Your task to perform on an android device: uninstall "Booking.com: Hotels and more" Image 0: 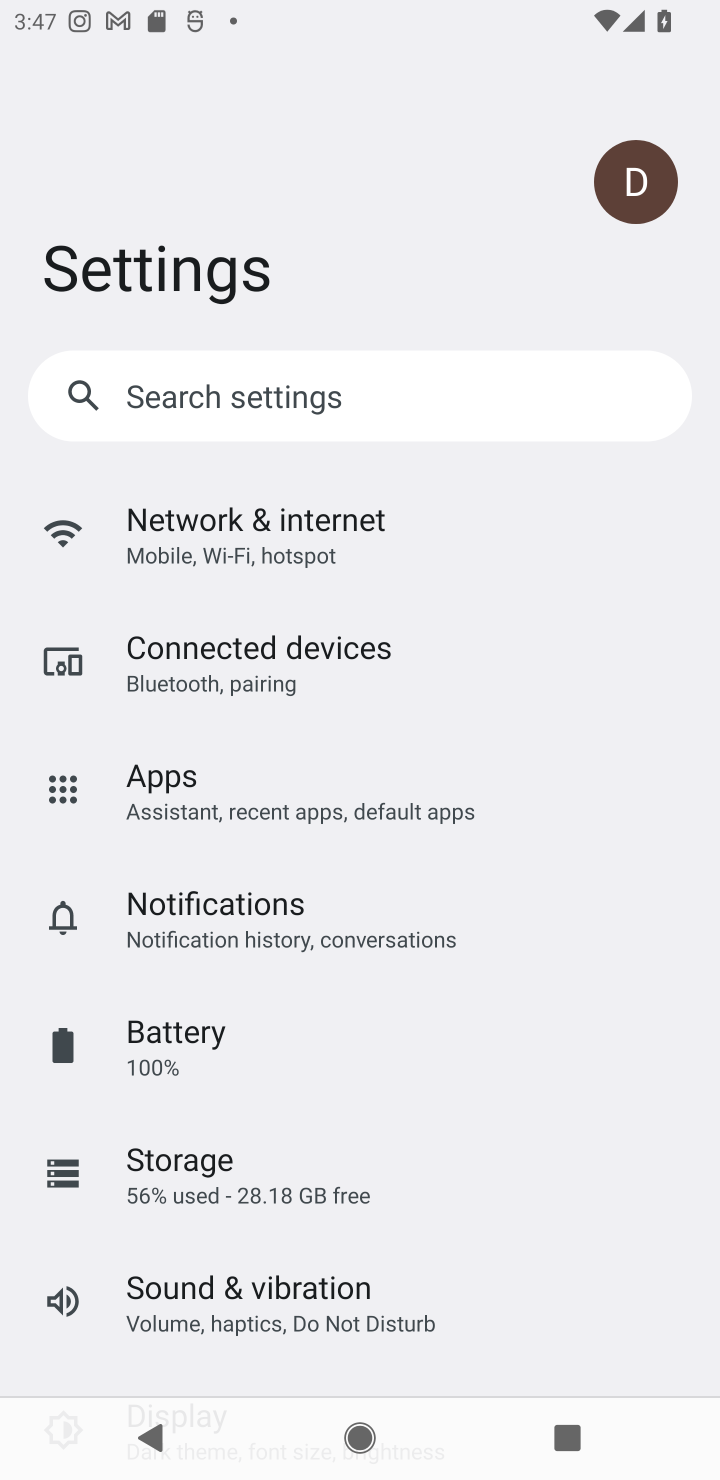
Step 0: press home button
Your task to perform on an android device: uninstall "Booking.com: Hotels and more" Image 1: 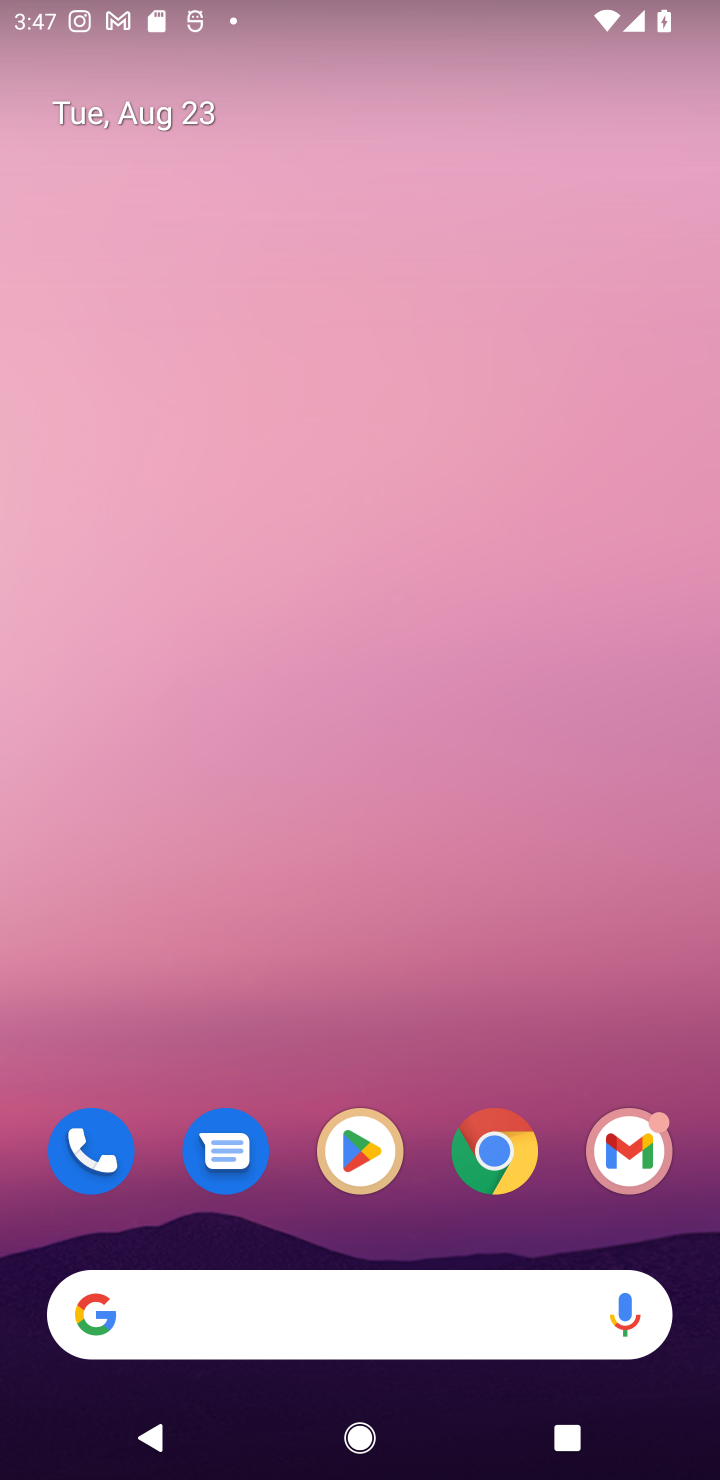
Step 1: click (357, 1153)
Your task to perform on an android device: uninstall "Booking.com: Hotels and more" Image 2: 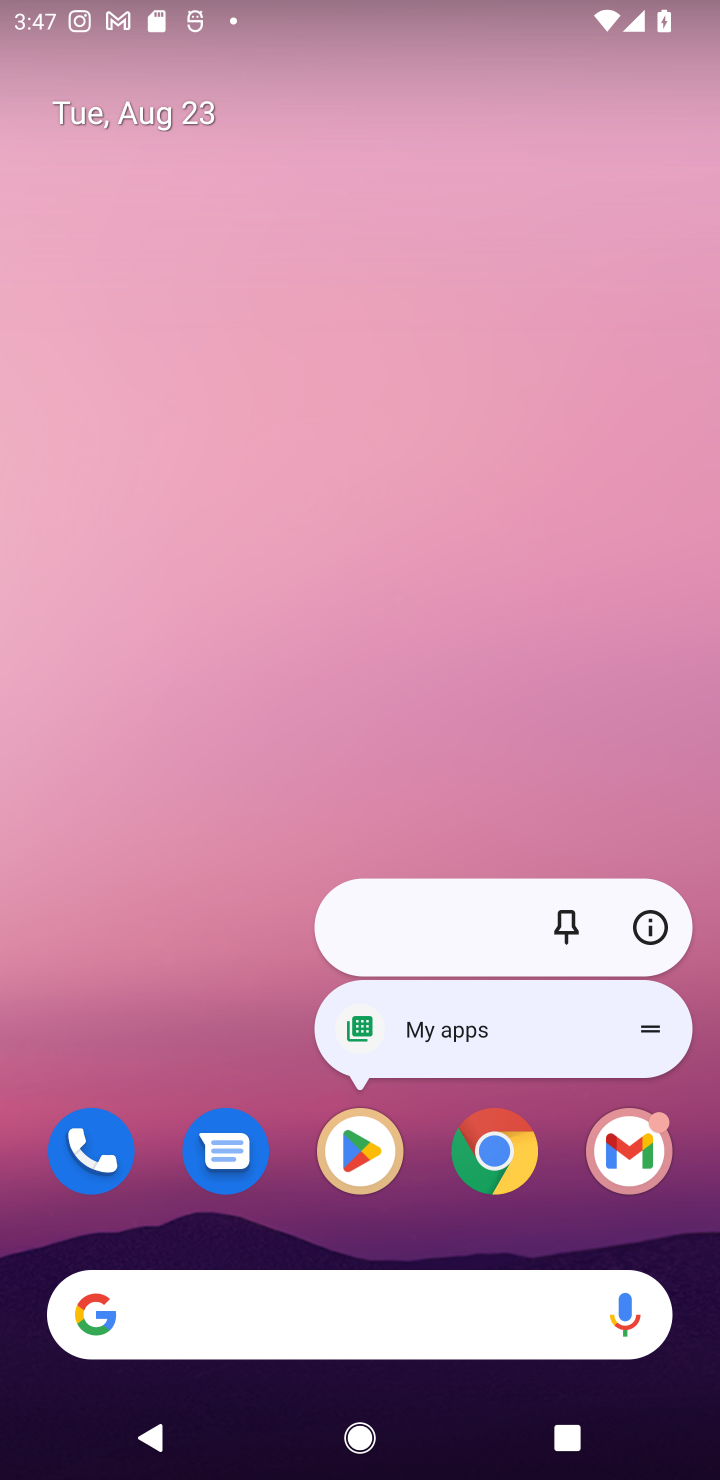
Step 2: click (357, 1157)
Your task to perform on an android device: uninstall "Booking.com: Hotels and more" Image 3: 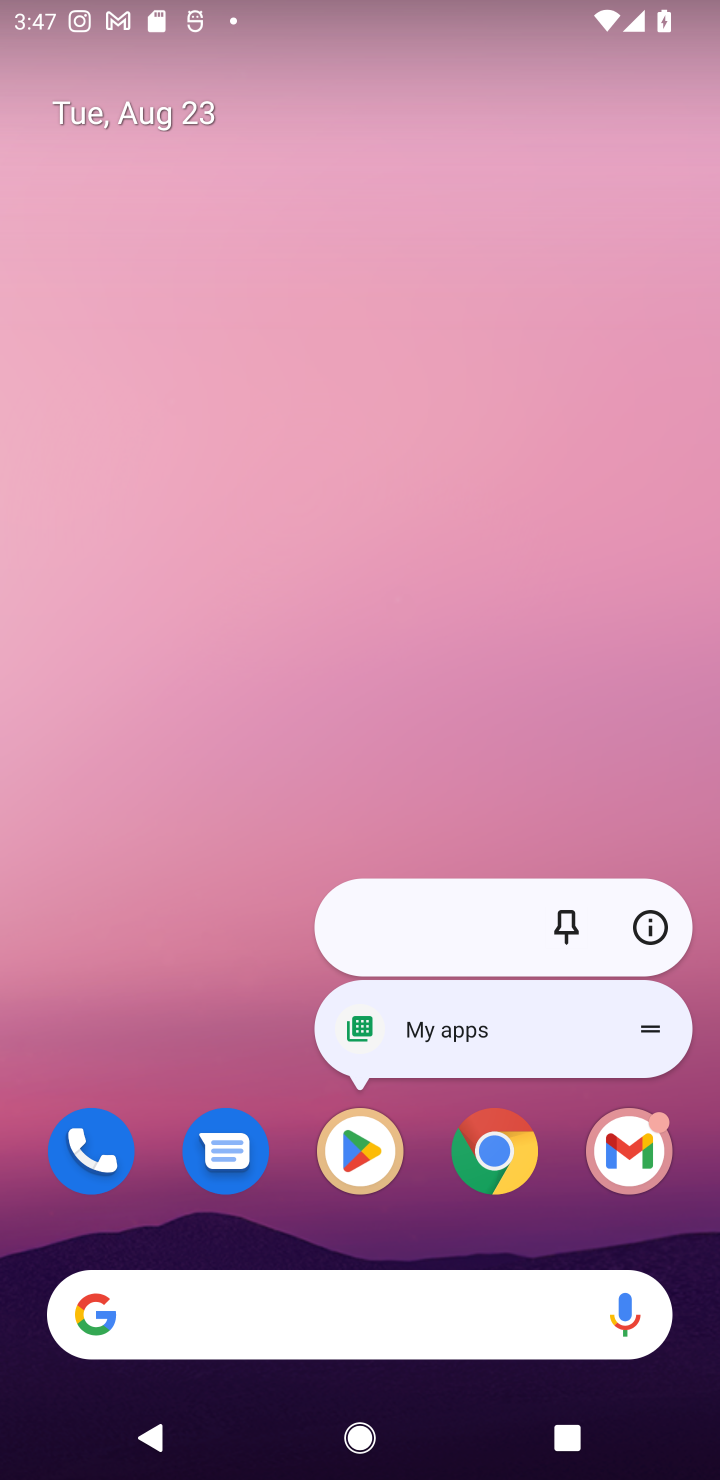
Step 3: click (357, 1157)
Your task to perform on an android device: uninstall "Booking.com: Hotels and more" Image 4: 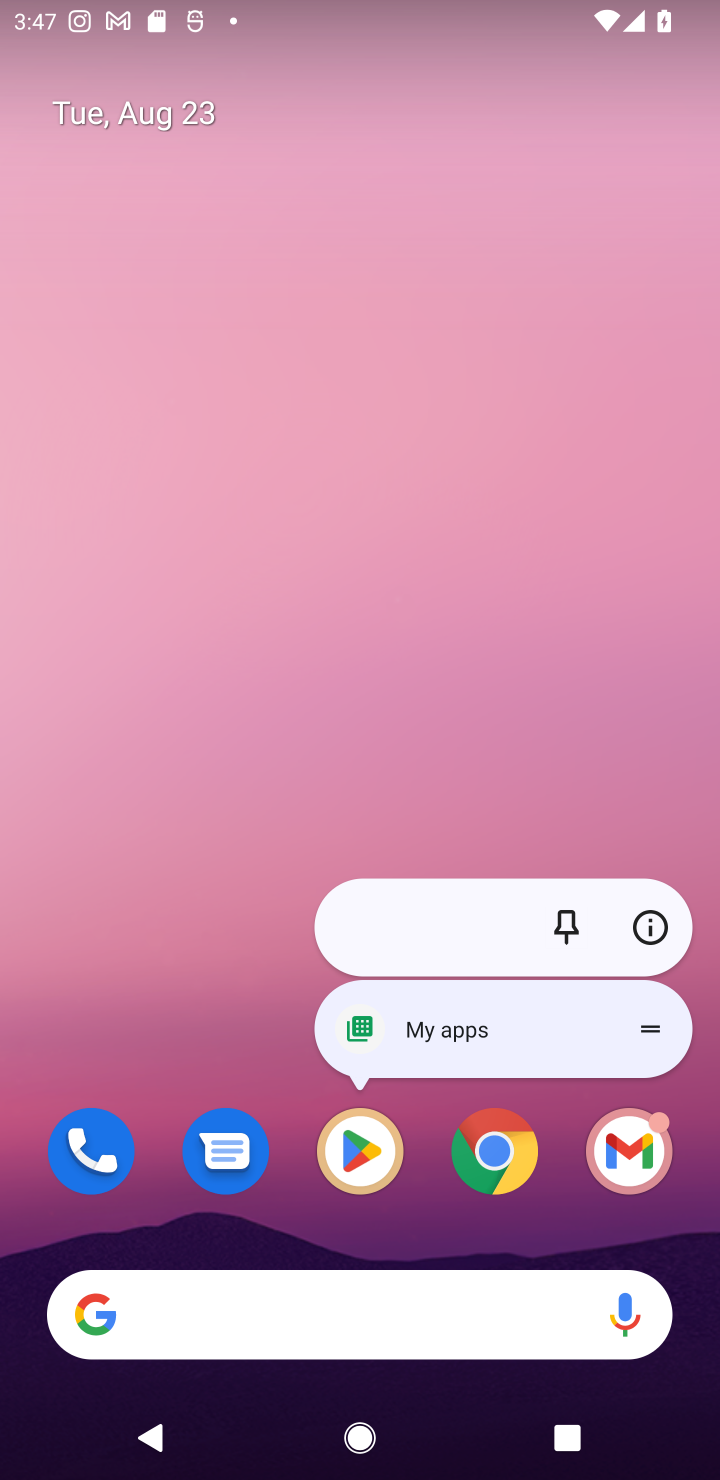
Step 4: click (357, 1157)
Your task to perform on an android device: uninstall "Booking.com: Hotels and more" Image 5: 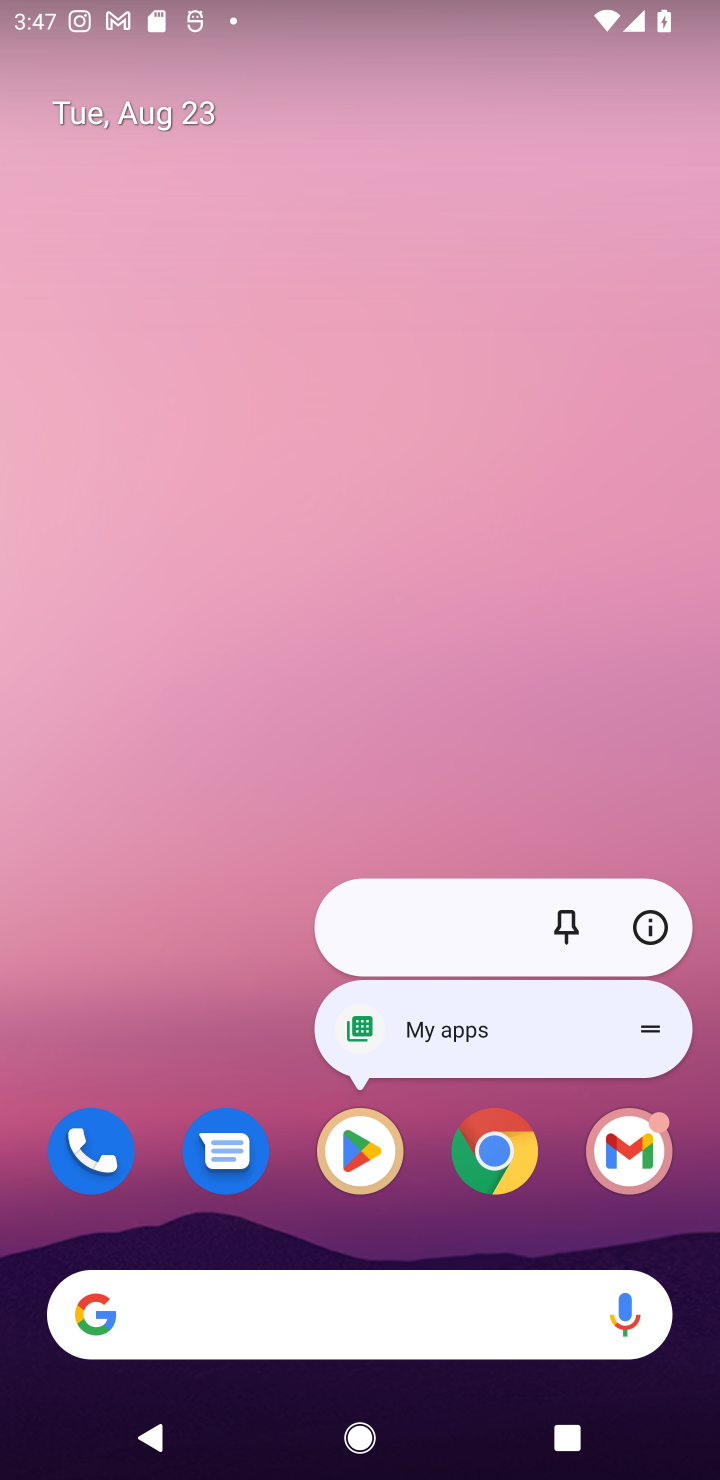
Step 5: click (357, 1157)
Your task to perform on an android device: uninstall "Booking.com: Hotels and more" Image 6: 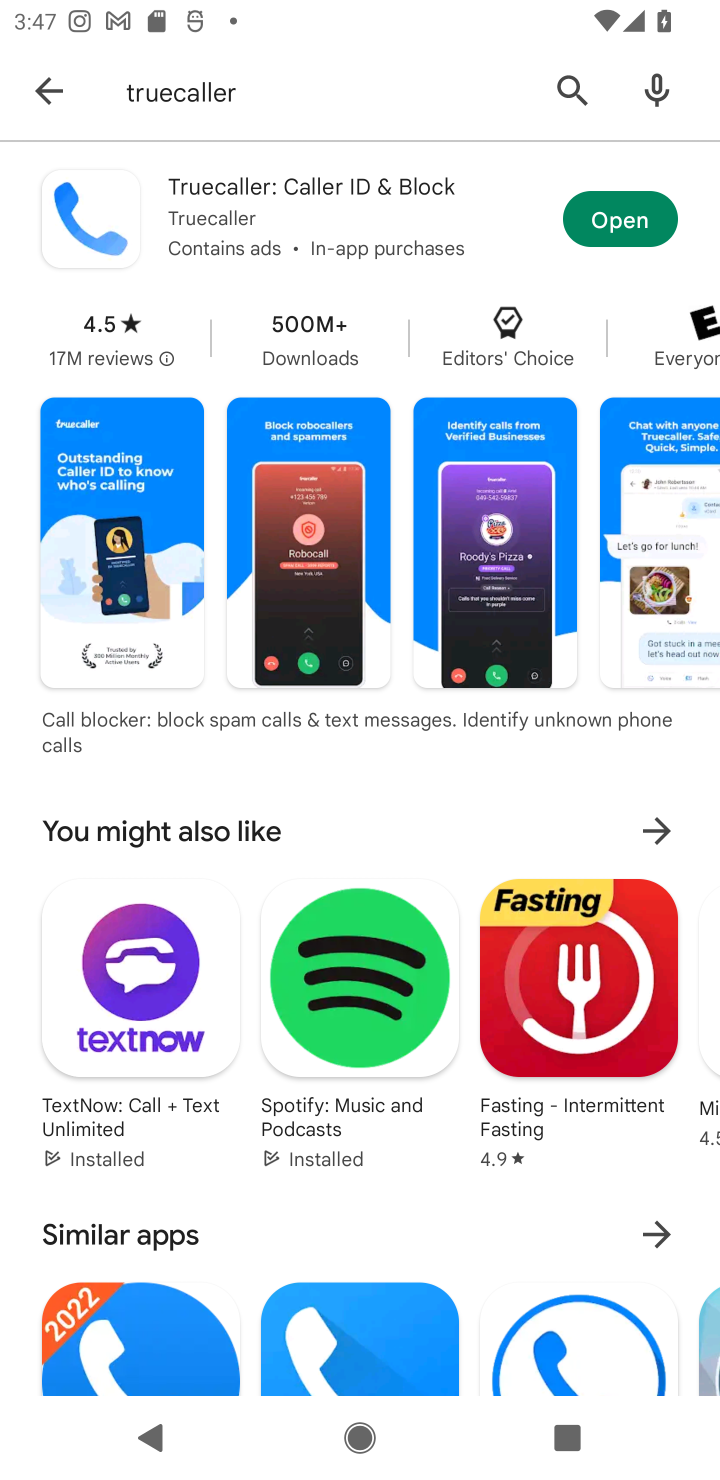
Step 6: click (578, 78)
Your task to perform on an android device: uninstall "Booking.com: Hotels and more" Image 7: 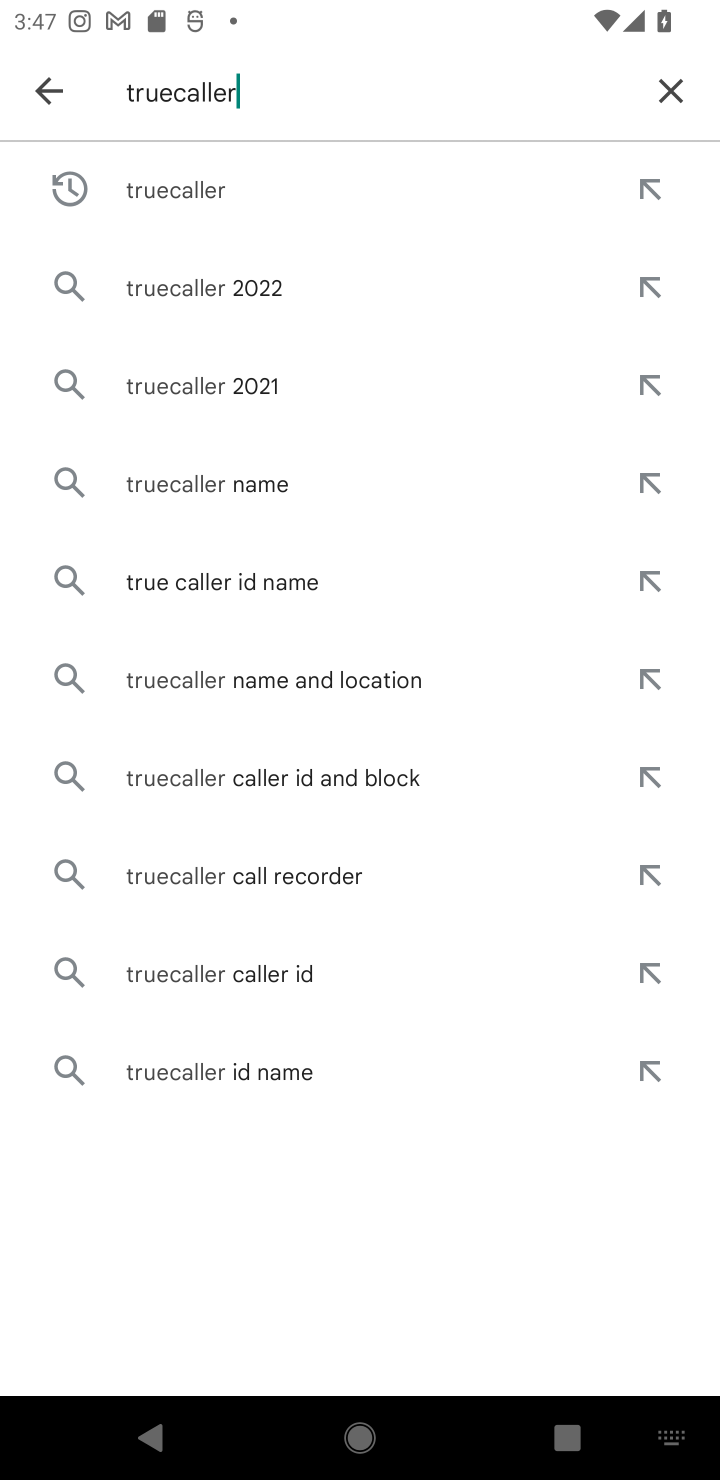
Step 7: click (673, 85)
Your task to perform on an android device: uninstall "Booking.com: Hotels and more" Image 8: 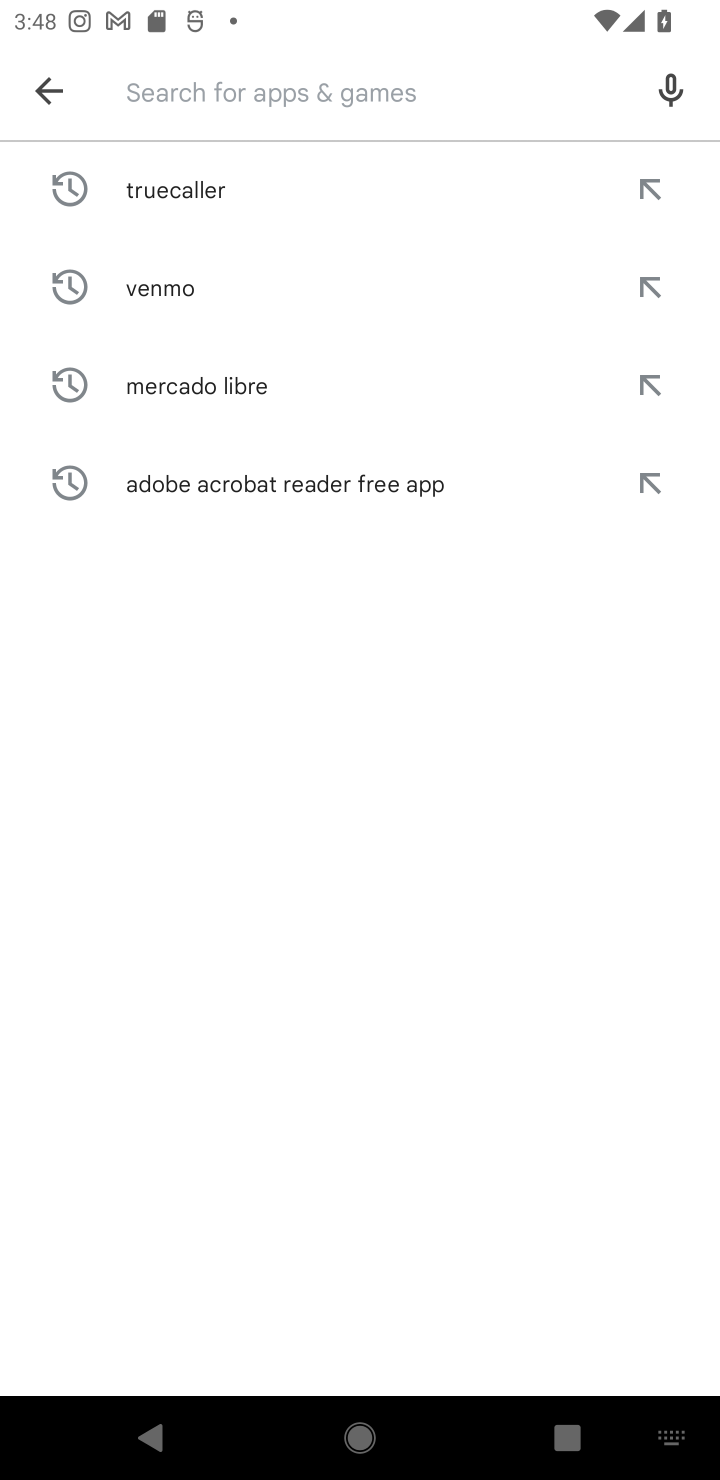
Step 8: type "Booking.com: Hotels and more"
Your task to perform on an android device: uninstall "Booking.com: Hotels and more" Image 9: 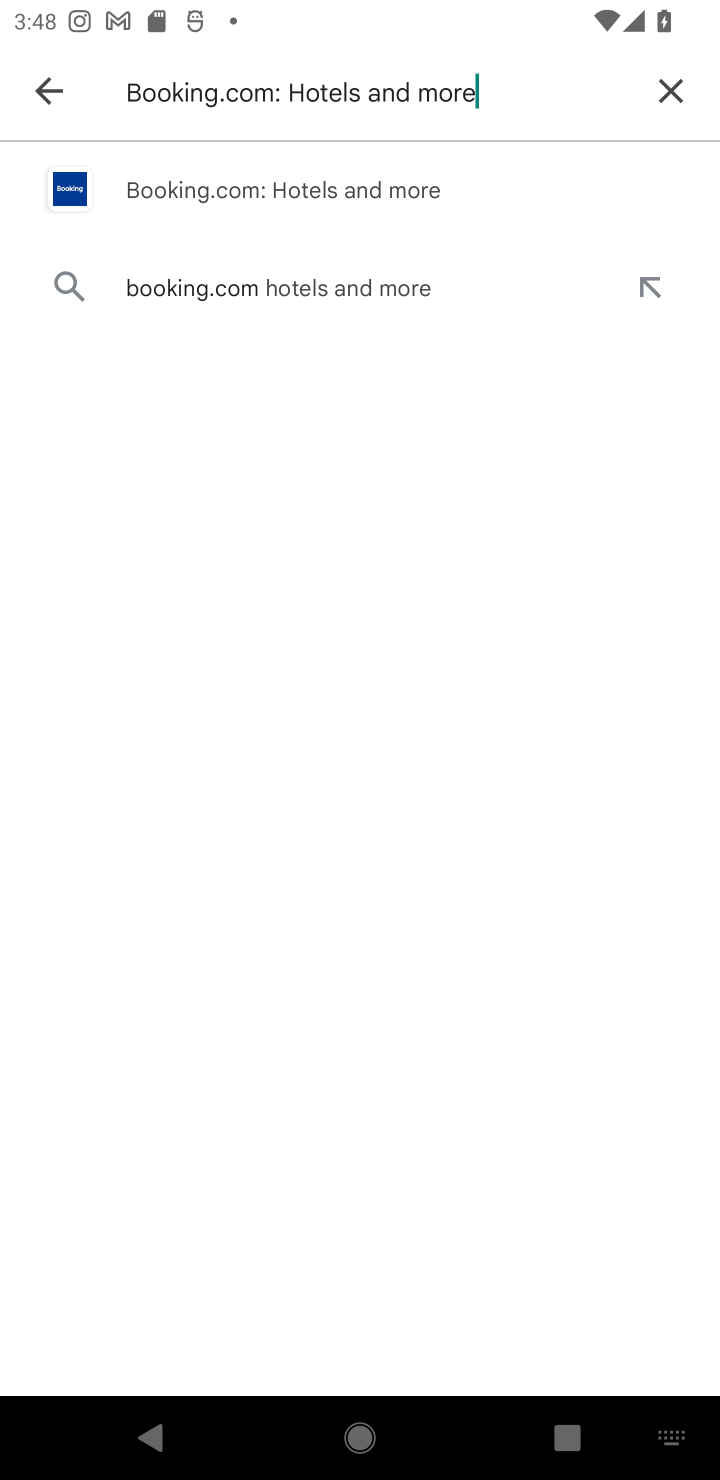
Step 9: click (225, 189)
Your task to perform on an android device: uninstall "Booking.com: Hotels and more" Image 10: 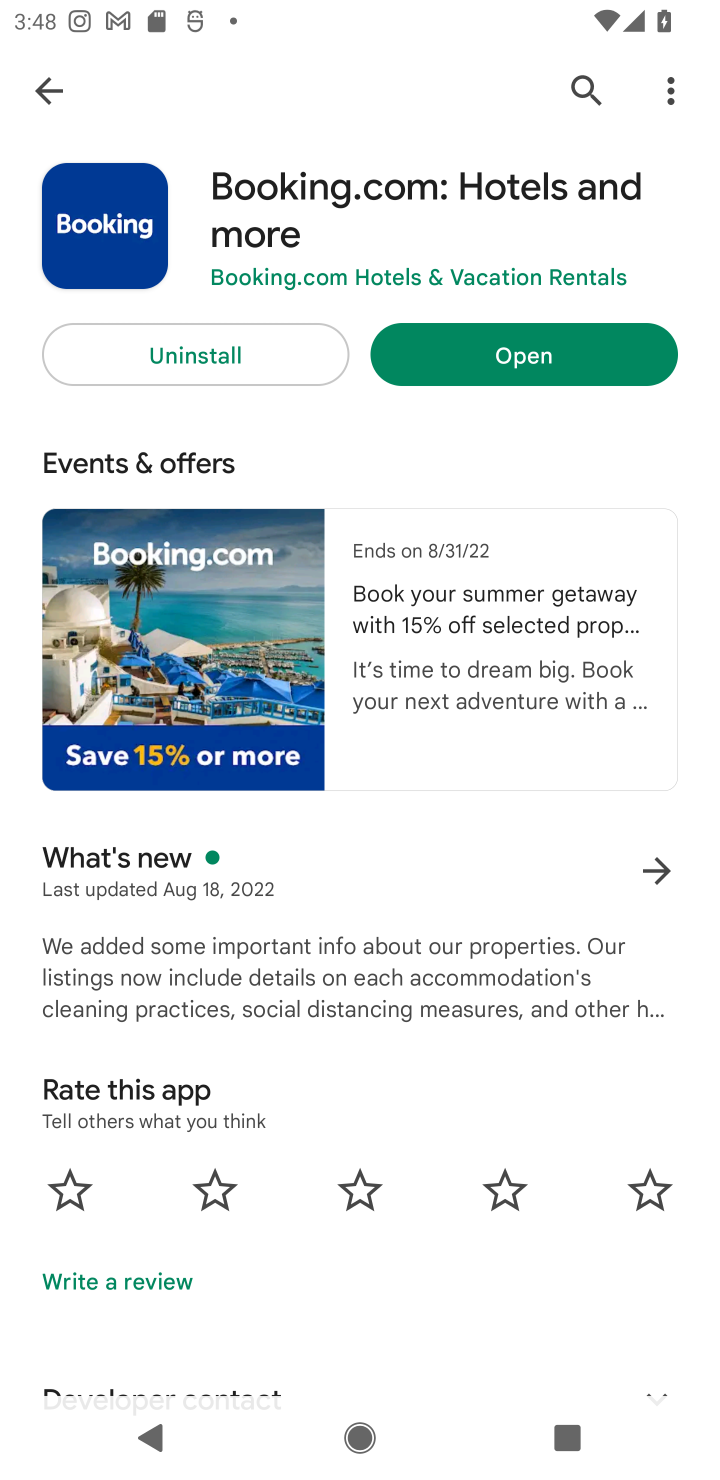
Step 10: click (169, 350)
Your task to perform on an android device: uninstall "Booking.com: Hotels and more" Image 11: 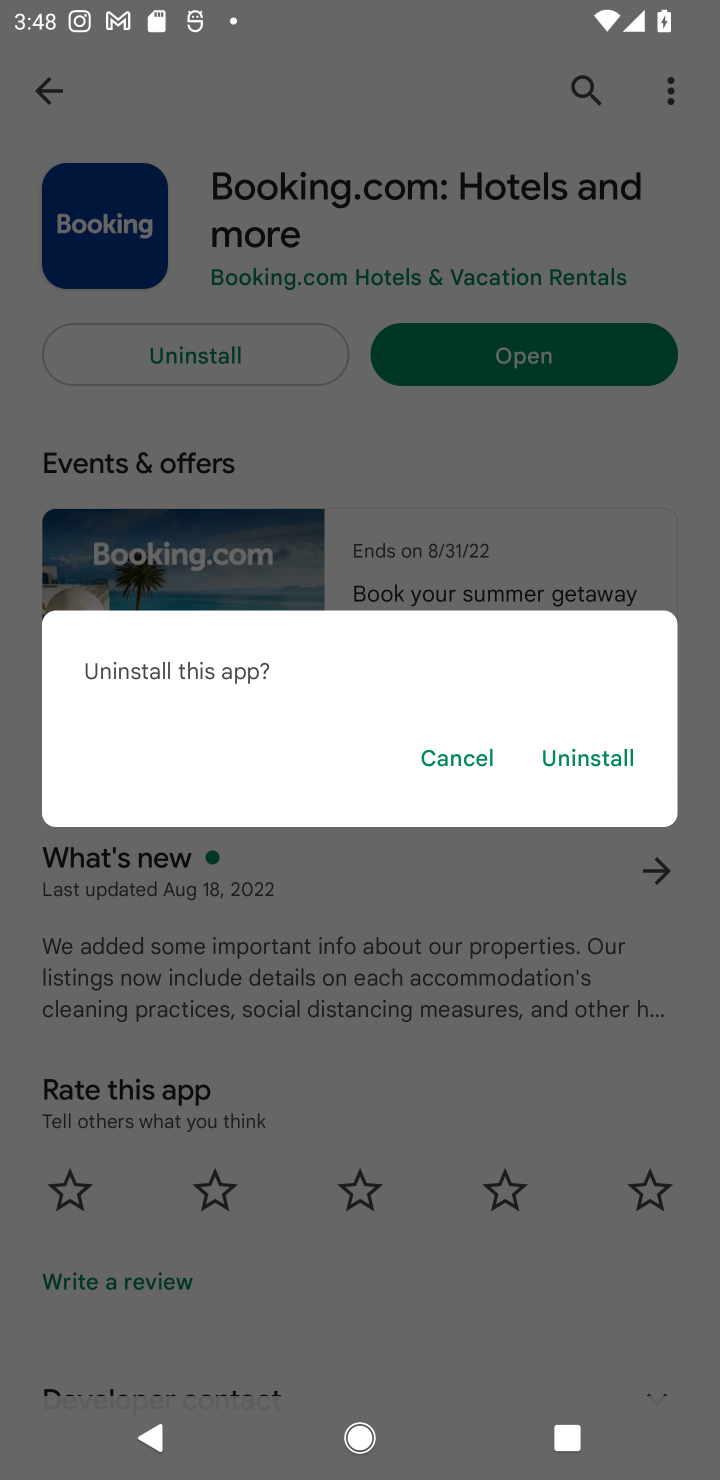
Step 11: click (603, 762)
Your task to perform on an android device: uninstall "Booking.com: Hotels and more" Image 12: 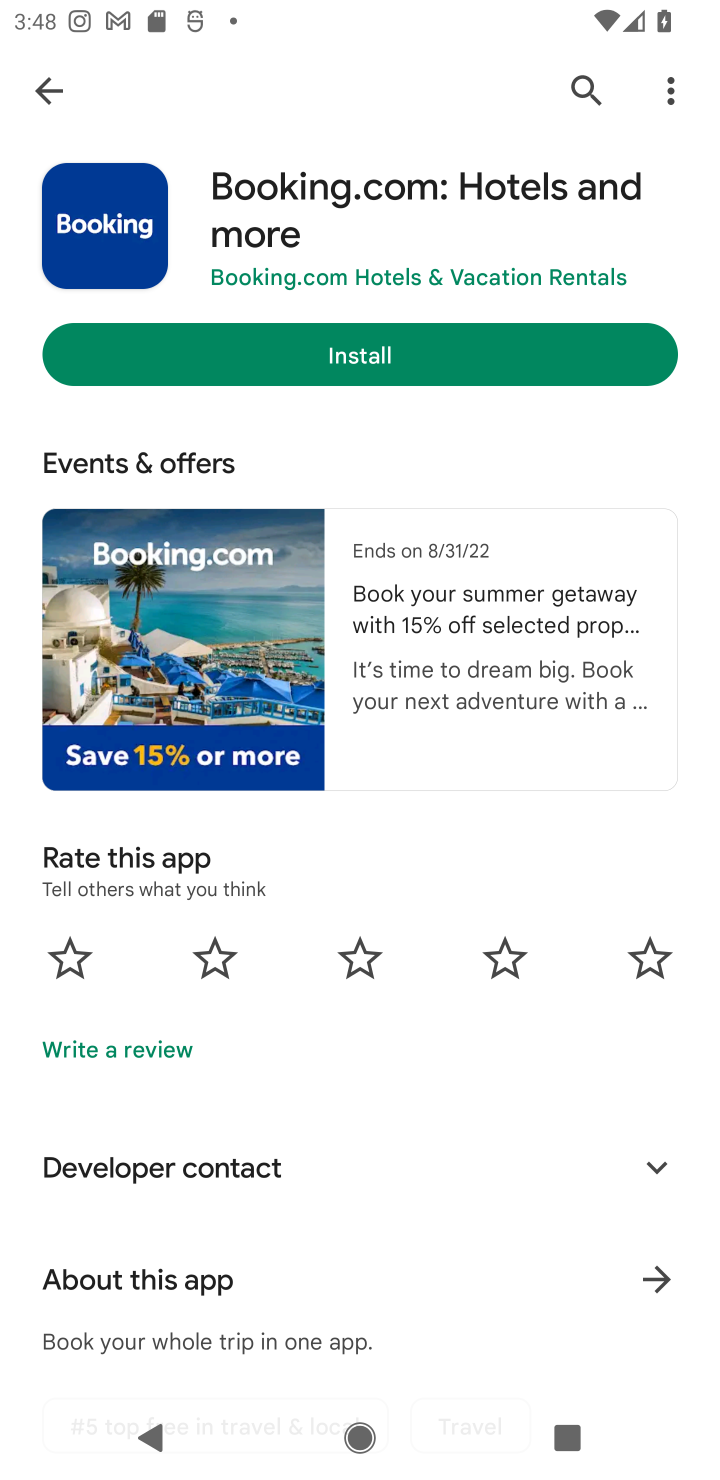
Step 12: task complete